Your task to perform on an android device: check out phone information Image 0: 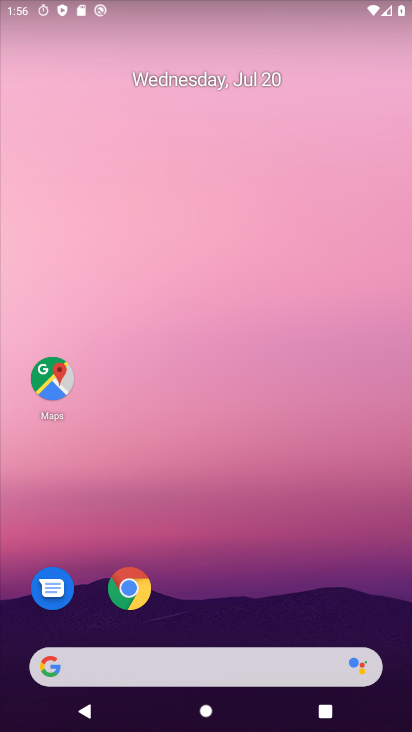
Step 0: drag from (266, 710) to (231, 5)
Your task to perform on an android device: check out phone information Image 1: 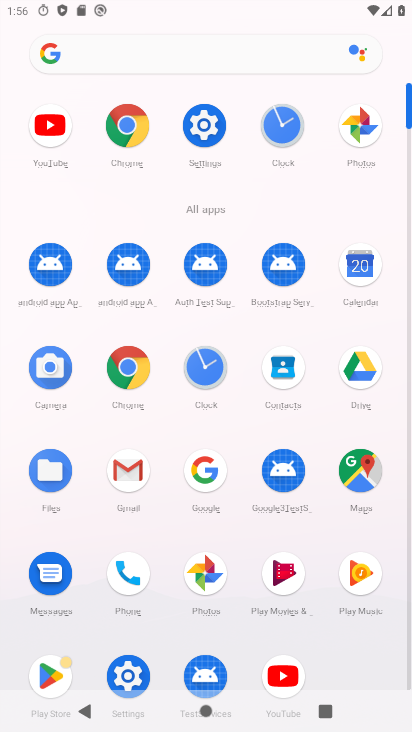
Step 1: click (211, 130)
Your task to perform on an android device: check out phone information Image 2: 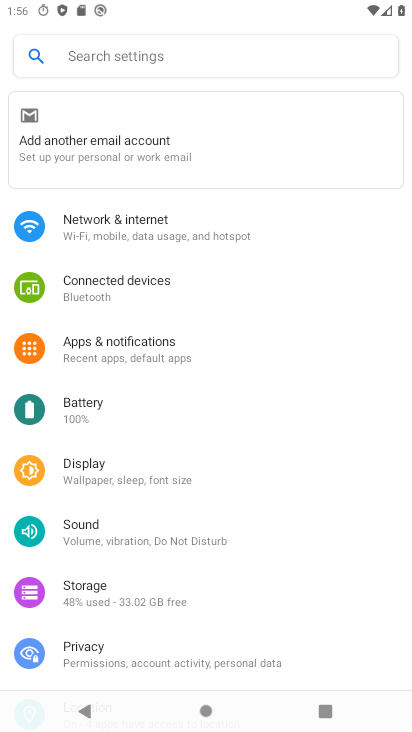
Step 2: drag from (211, 474) to (232, 9)
Your task to perform on an android device: check out phone information Image 3: 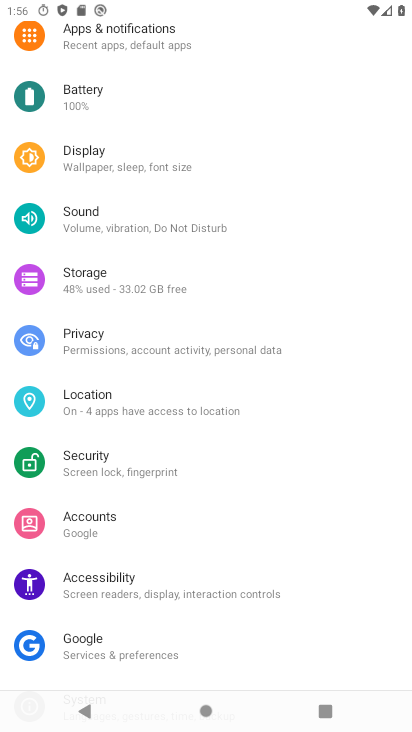
Step 3: drag from (201, 601) to (277, 219)
Your task to perform on an android device: check out phone information Image 4: 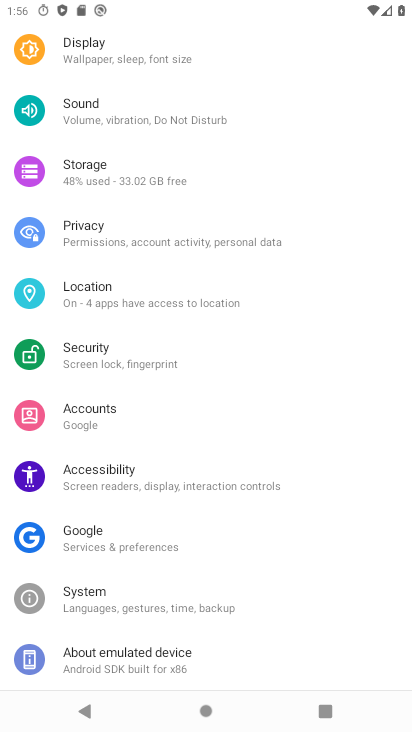
Step 4: click (208, 662)
Your task to perform on an android device: check out phone information Image 5: 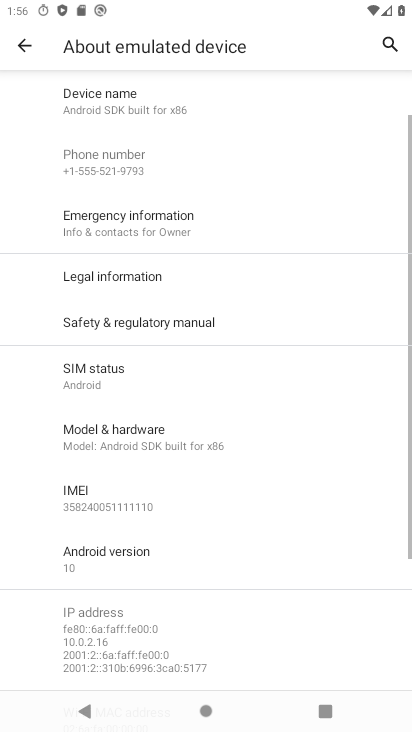
Step 5: task complete